Your task to perform on an android device: add a contact Image 0: 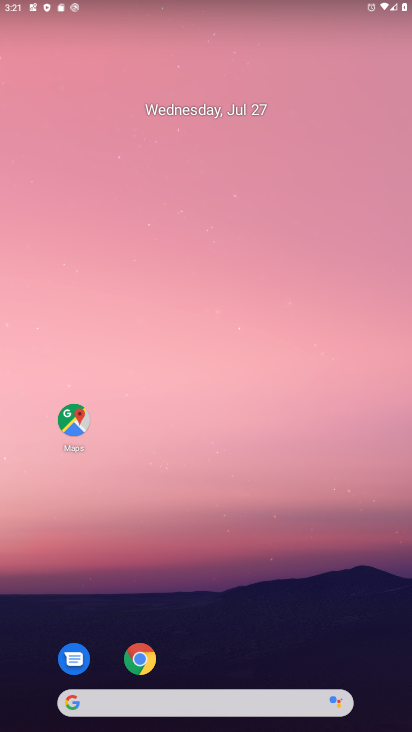
Step 0: drag from (225, 659) to (189, 61)
Your task to perform on an android device: add a contact Image 1: 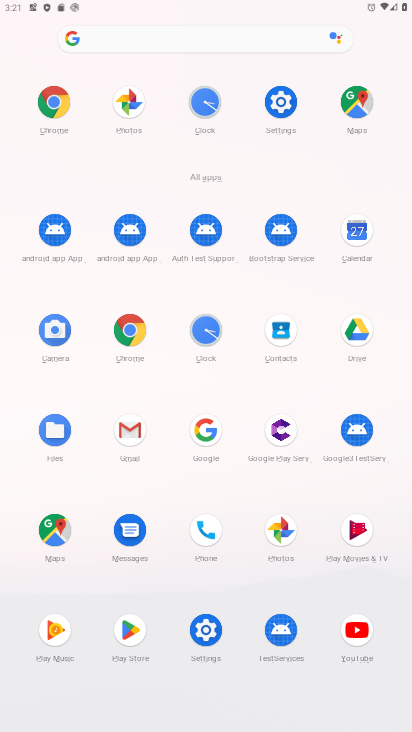
Step 1: click (282, 333)
Your task to perform on an android device: add a contact Image 2: 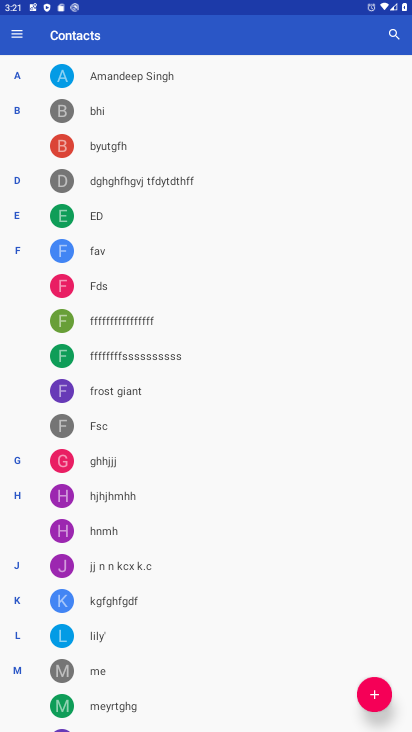
Step 2: click (378, 690)
Your task to perform on an android device: add a contact Image 3: 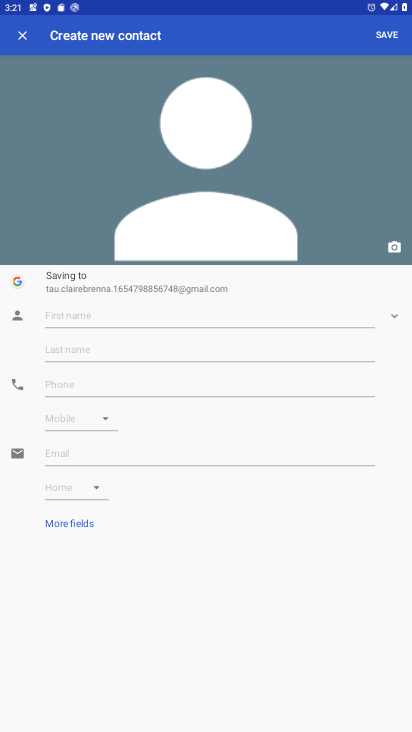
Step 3: click (164, 316)
Your task to perform on an android device: add a contact Image 4: 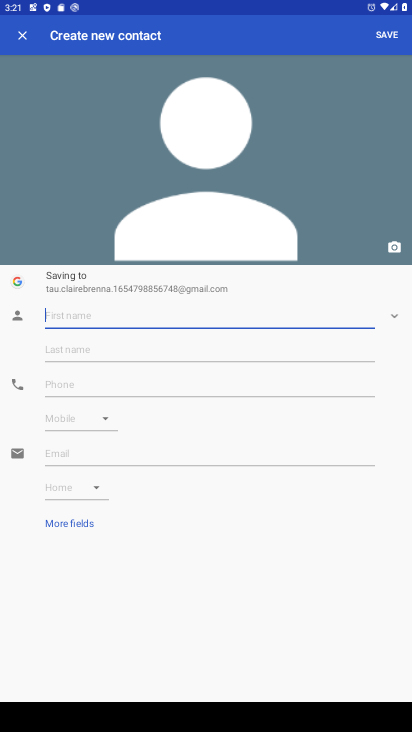
Step 4: type "bbjhjb"
Your task to perform on an android device: add a contact Image 5: 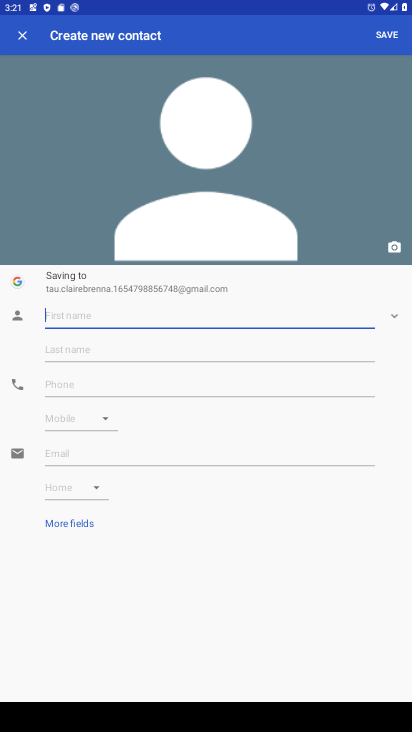
Step 5: click (352, 383)
Your task to perform on an android device: add a contact Image 6: 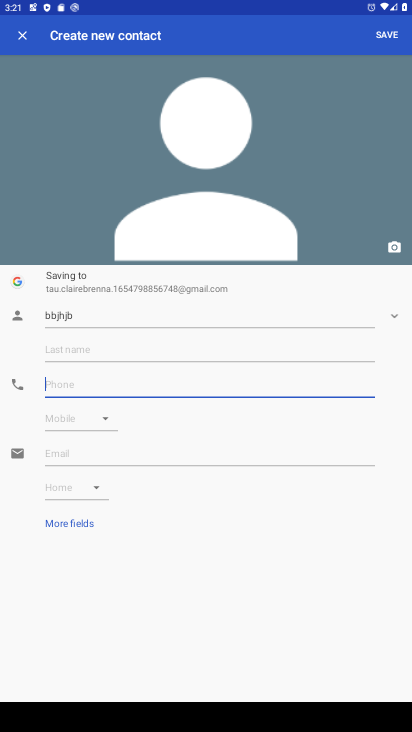
Step 6: type "768687"
Your task to perform on an android device: add a contact Image 7: 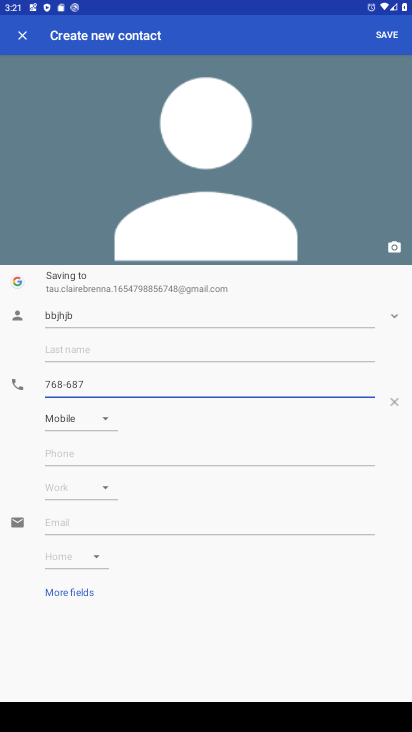
Step 7: click (389, 31)
Your task to perform on an android device: add a contact Image 8: 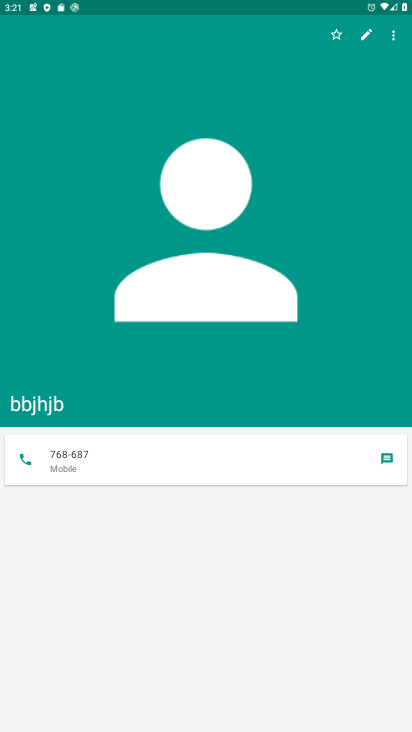
Step 8: task complete